Your task to perform on an android device: refresh tabs in the chrome app Image 0: 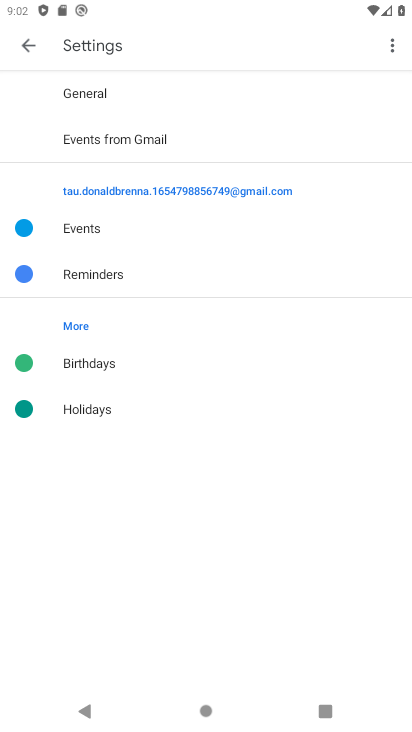
Step 0: press home button
Your task to perform on an android device: refresh tabs in the chrome app Image 1: 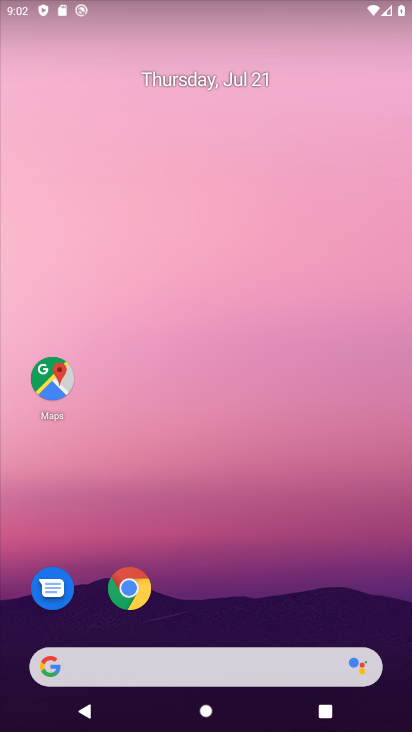
Step 1: click (136, 582)
Your task to perform on an android device: refresh tabs in the chrome app Image 2: 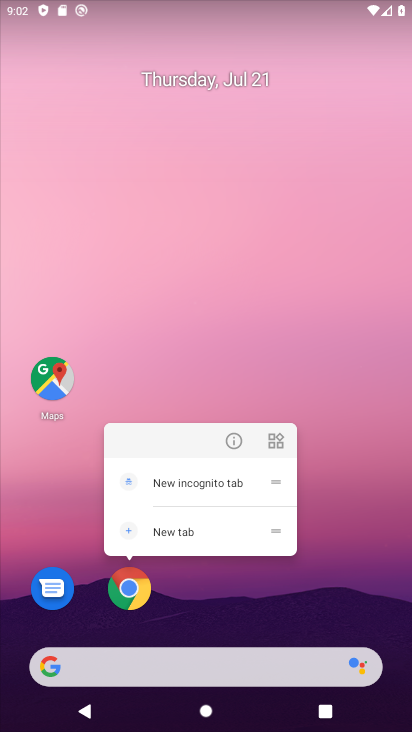
Step 2: click (124, 591)
Your task to perform on an android device: refresh tabs in the chrome app Image 3: 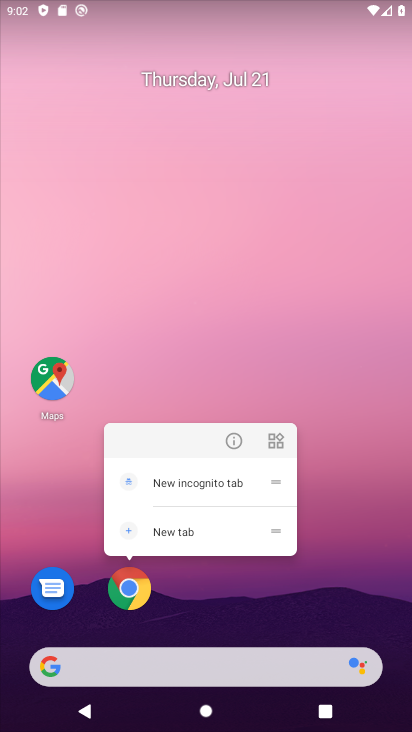
Step 3: click (128, 592)
Your task to perform on an android device: refresh tabs in the chrome app Image 4: 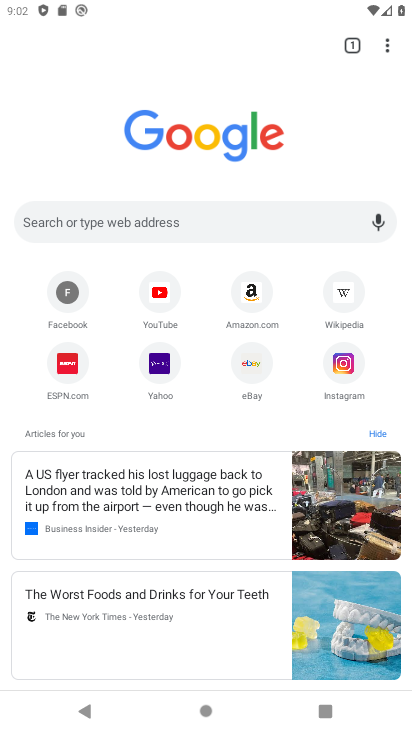
Step 4: click (387, 47)
Your task to perform on an android device: refresh tabs in the chrome app Image 5: 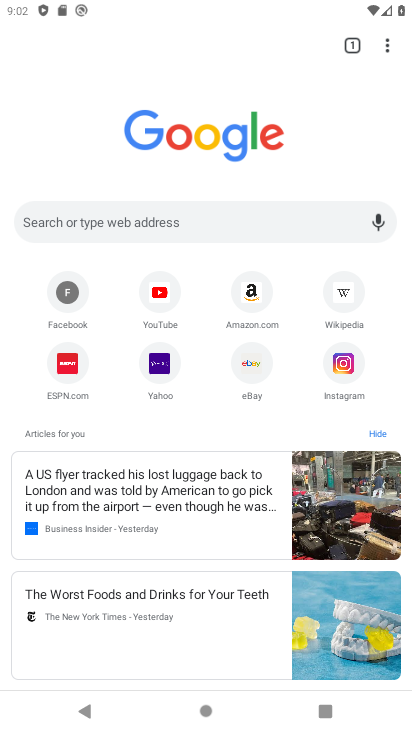
Step 5: click (387, 47)
Your task to perform on an android device: refresh tabs in the chrome app Image 6: 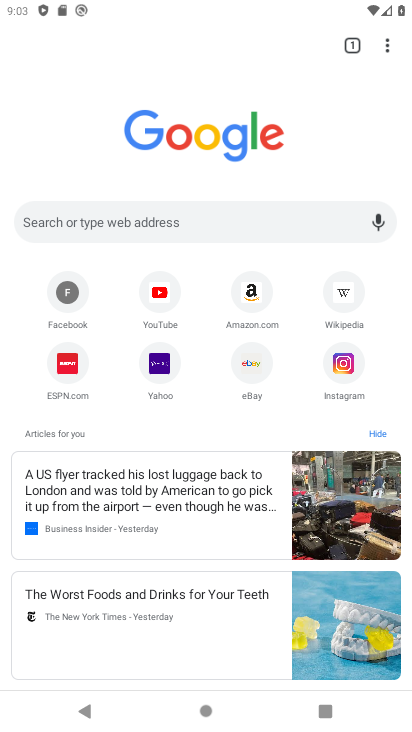
Step 6: click (387, 47)
Your task to perform on an android device: refresh tabs in the chrome app Image 7: 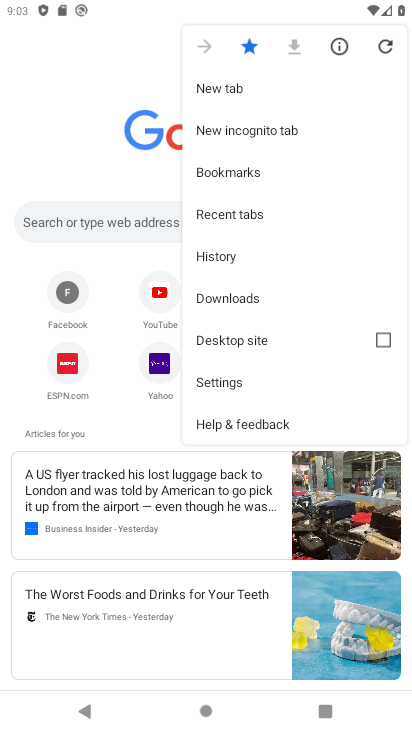
Step 7: click (387, 47)
Your task to perform on an android device: refresh tabs in the chrome app Image 8: 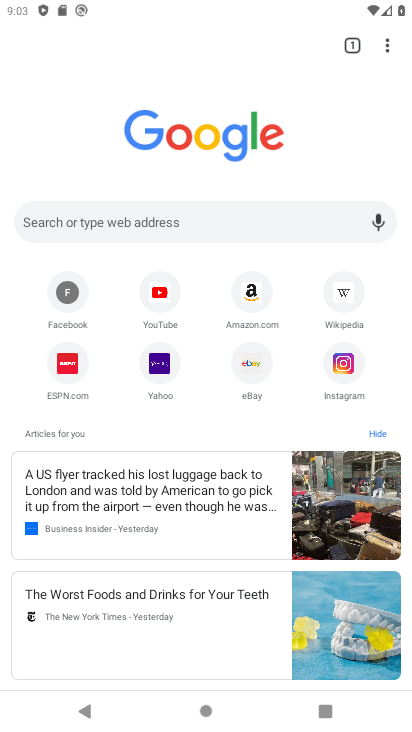
Step 8: task complete